Your task to perform on an android device: Set the phone to "Do not disturb". Image 0: 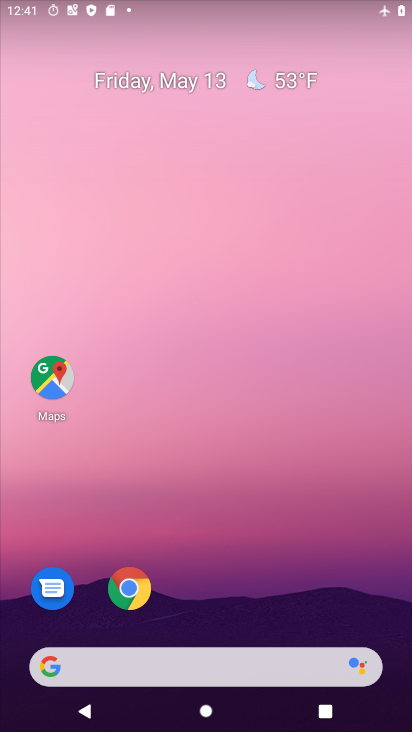
Step 0: drag from (263, 14) to (298, 477)
Your task to perform on an android device: Set the phone to "Do not disturb". Image 1: 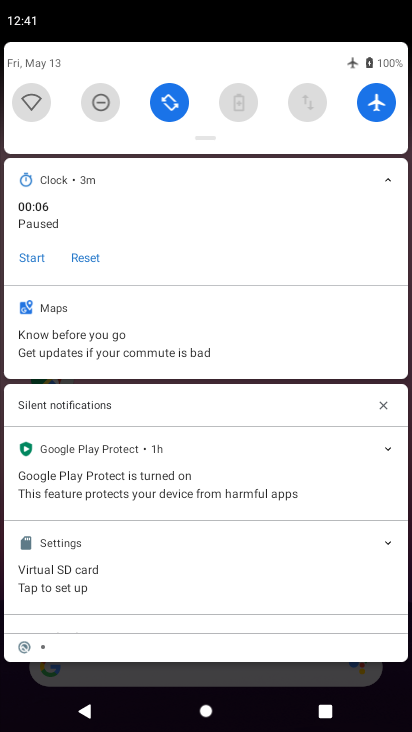
Step 1: click (96, 94)
Your task to perform on an android device: Set the phone to "Do not disturb". Image 2: 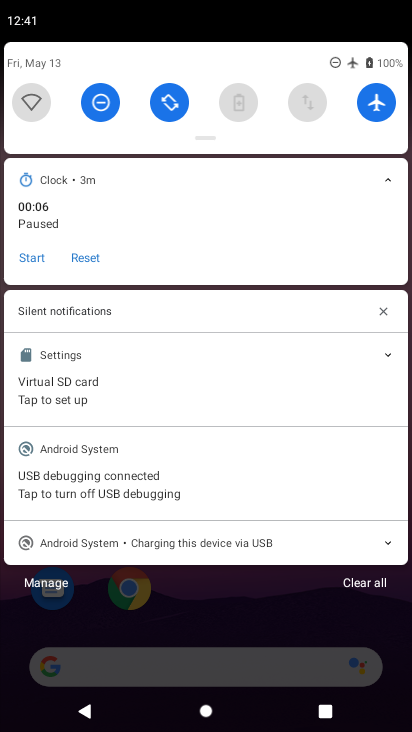
Step 2: task complete